Your task to perform on an android device: Open CNN.com Image 0: 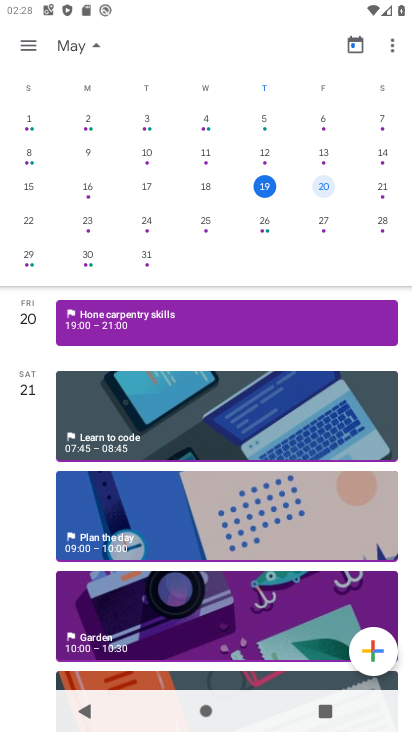
Step 0: press home button
Your task to perform on an android device: Open CNN.com Image 1: 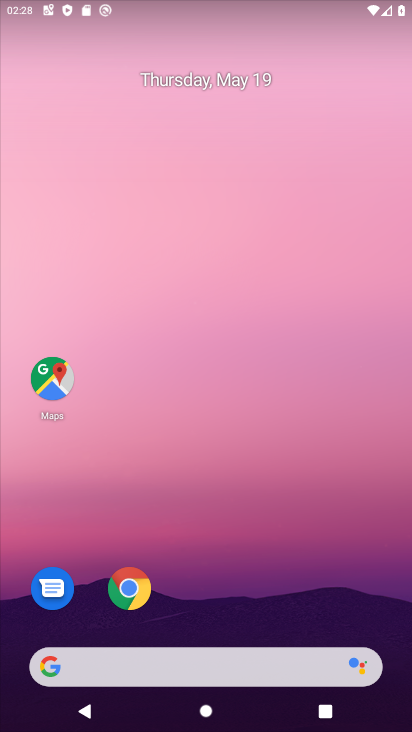
Step 1: drag from (219, 537) to (211, 78)
Your task to perform on an android device: Open CNN.com Image 2: 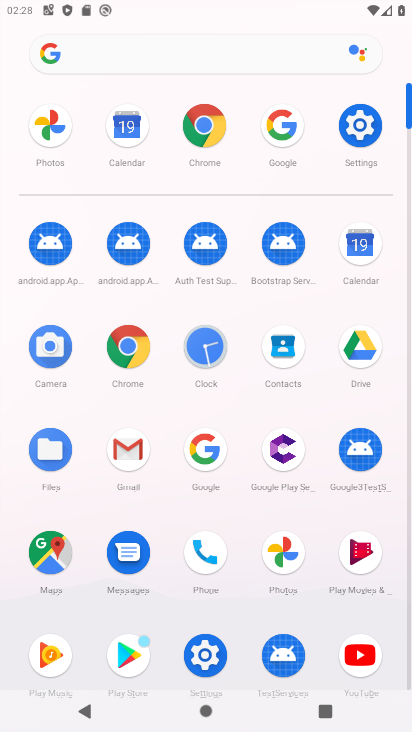
Step 2: click (281, 120)
Your task to perform on an android device: Open CNN.com Image 3: 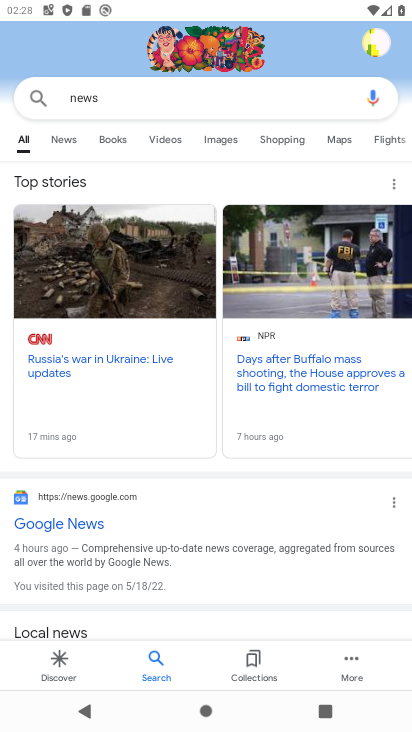
Step 3: click (192, 98)
Your task to perform on an android device: Open CNN.com Image 4: 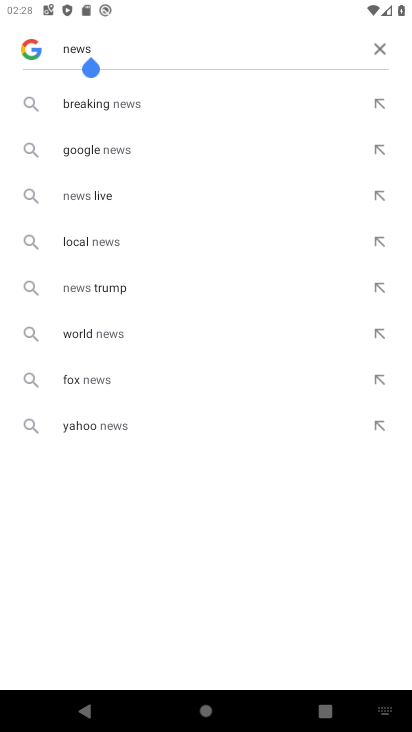
Step 4: click (375, 49)
Your task to perform on an android device: Open CNN.com Image 5: 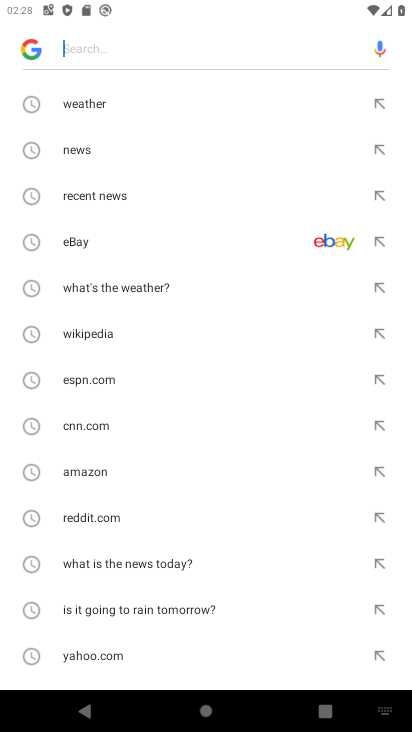
Step 5: click (108, 431)
Your task to perform on an android device: Open CNN.com Image 6: 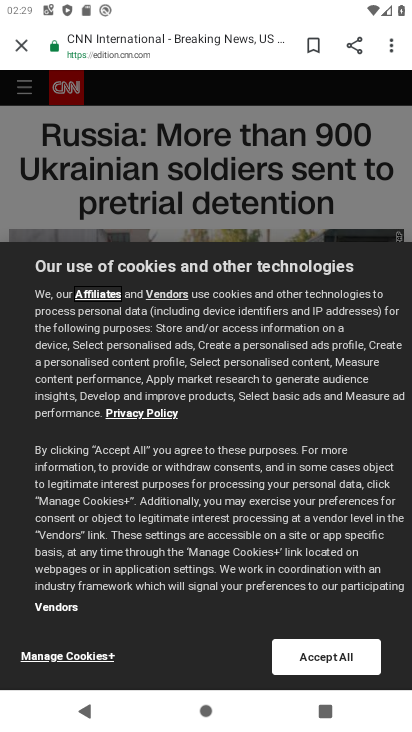
Step 6: task complete